Your task to perform on an android device: Go to privacy settings Image 0: 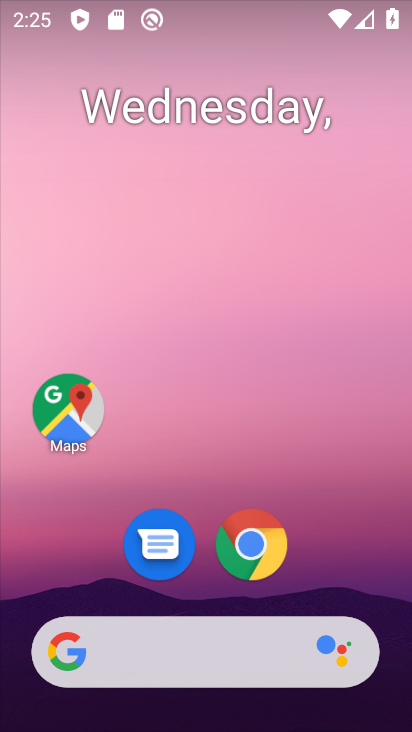
Step 0: click (258, 562)
Your task to perform on an android device: Go to privacy settings Image 1: 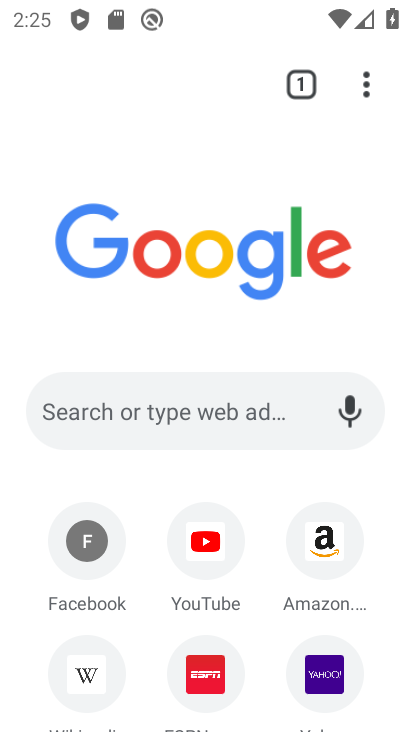
Step 1: drag from (385, 100) to (233, 601)
Your task to perform on an android device: Go to privacy settings Image 2: 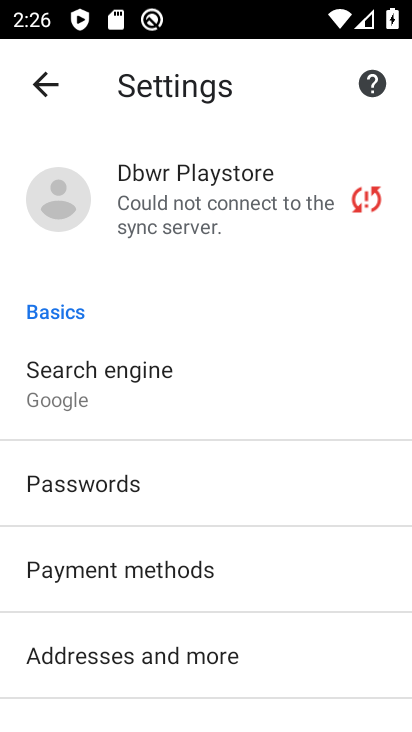
Step 2: drag from (196, 635) to (284, 296)
Your task to perform on an android device: Go to privacy settings Image 3: 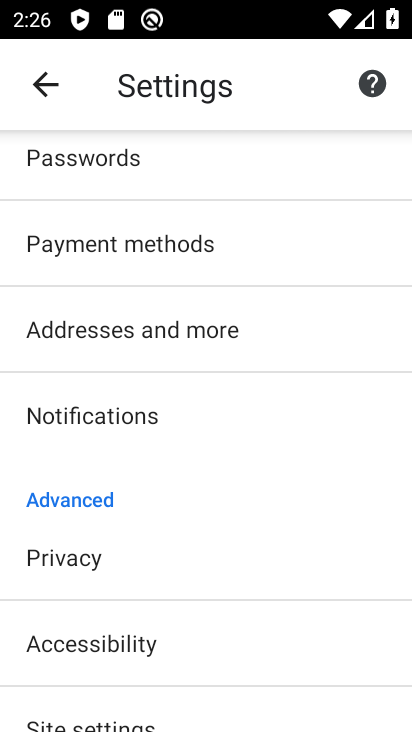
Step 3: click (130, 553)
Your task to perform on an android device: Go to privacy settings Image 4: 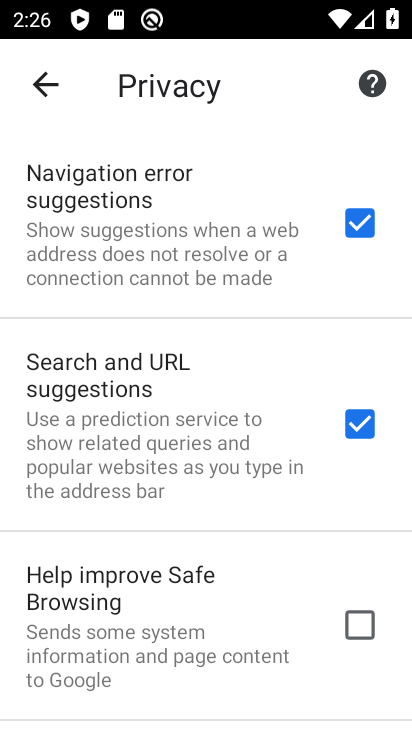
Step 4: task complete